Your task to perform on an android device: Show me popular videos on Youtube Image 0: 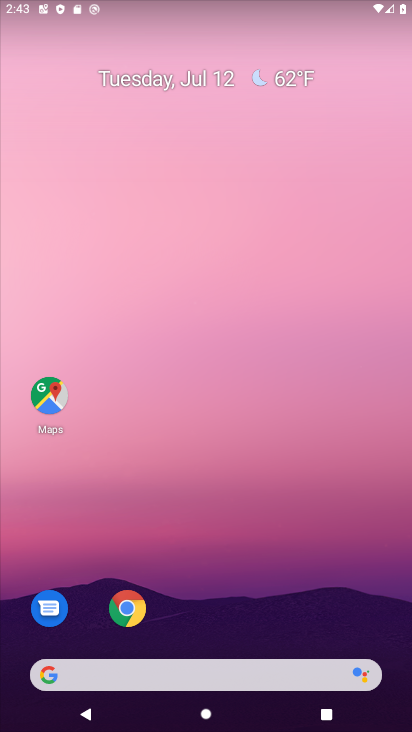
Step 0: press home button
Your task to perform on an android device: Show me popular videos on Youtube Image 1: 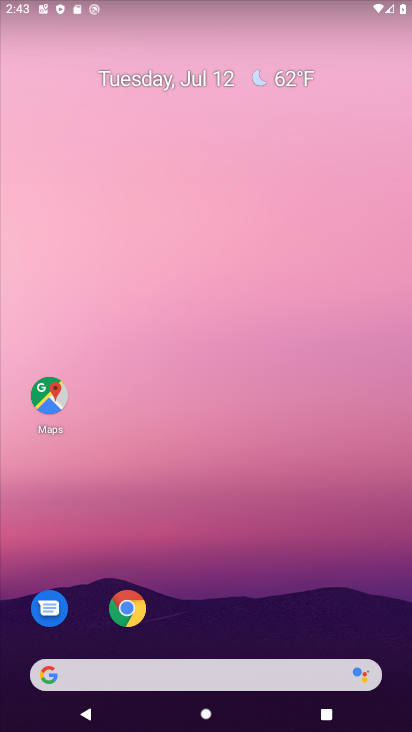
Step 1: drag from (138, 684) to (268, 72)
Your task to perform on an android device: Show me popular videos on Youtube Image 2: 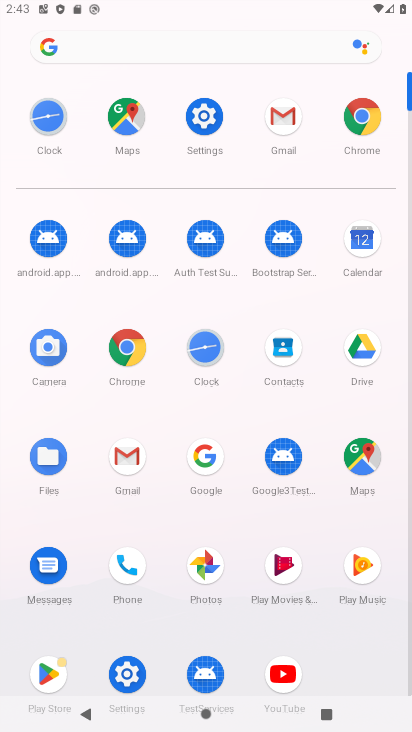
Step 2: click (280, 674)
Your task to perform on an android device: Show me popular videos on Youtube Image 3: 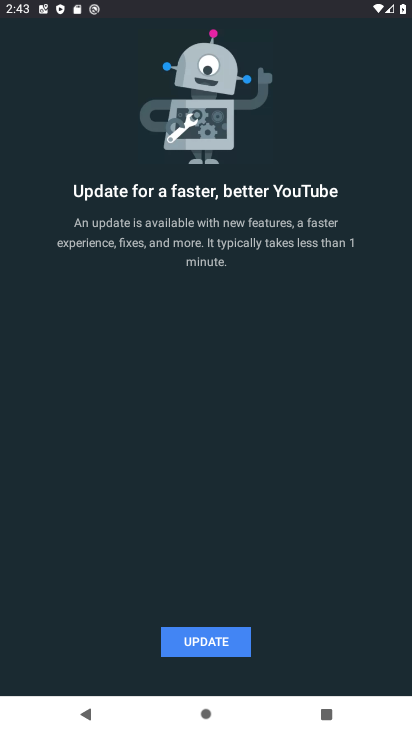
Step 3: click (213, 632)
Your task to perform on an android device: Show me popular videos on Youtube Image 4: 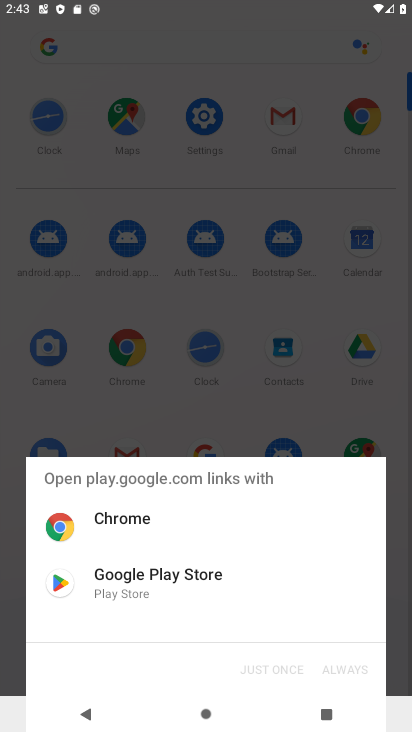
Step 4: click (155, 580)
Your task to perform on an android device: Show me popular videos on Youtube Image 5: 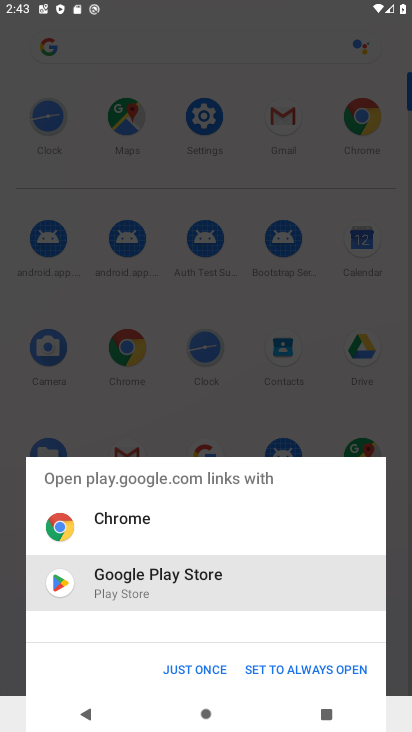
Step 5: click (195, 669)
Your task to perform on an android device: Show me popular videos on Youtube Image 6: 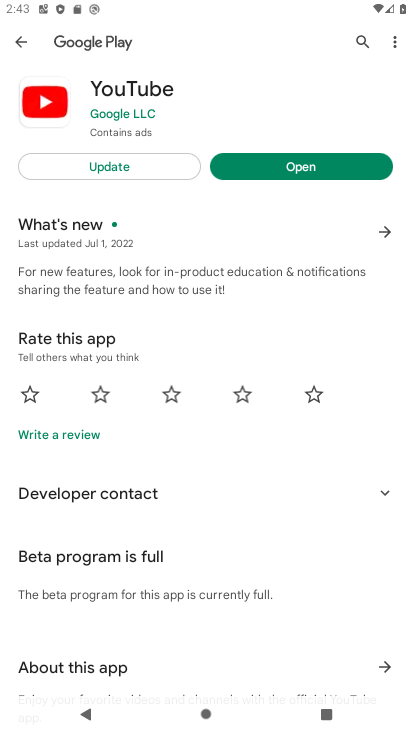
Step 6: click (115, 166)
Your task to perform on an android device: Show me popular videos on Youtube Image 7: 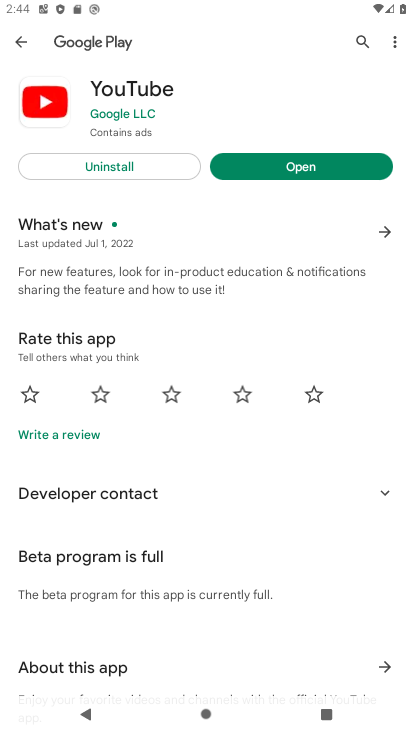
Step 7: click (286, 170)
Your task to perform on an android device: Show me popular videos on Youtube Image 8: 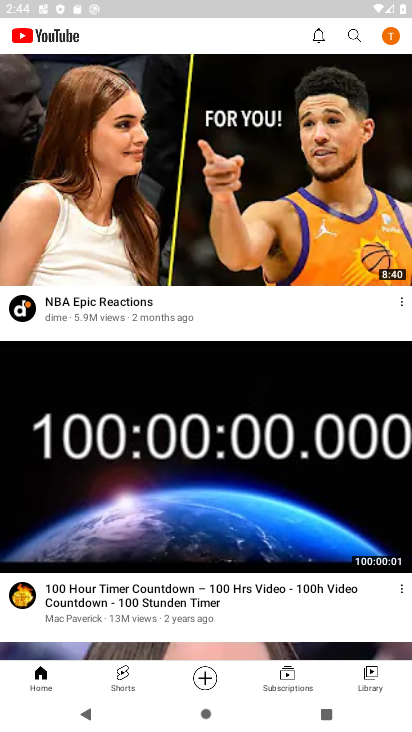
Step 8: task complete